Your task to perform on an android device: toggle translation in the chrome app Image 0: 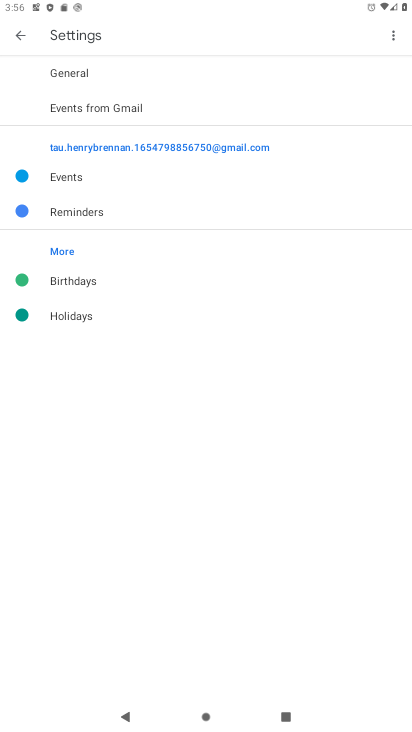
Step 0: press home button
Your task to perform on an android device: toggle translation in the chrome app Image 1: 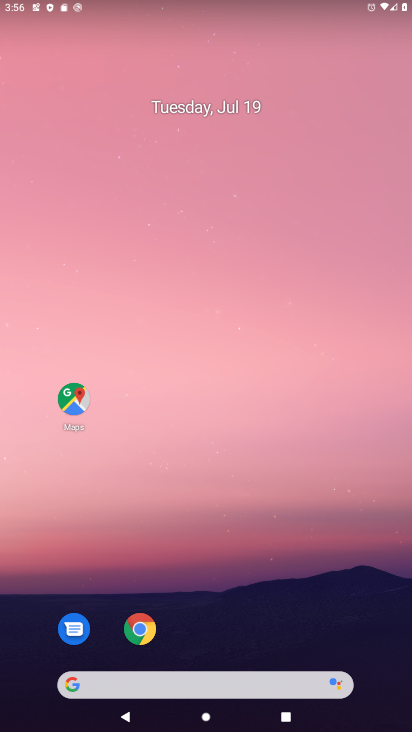
Step 1: click (135, 634)
Your task to perform on an android device: toggle translation in the chrome app Image 2: 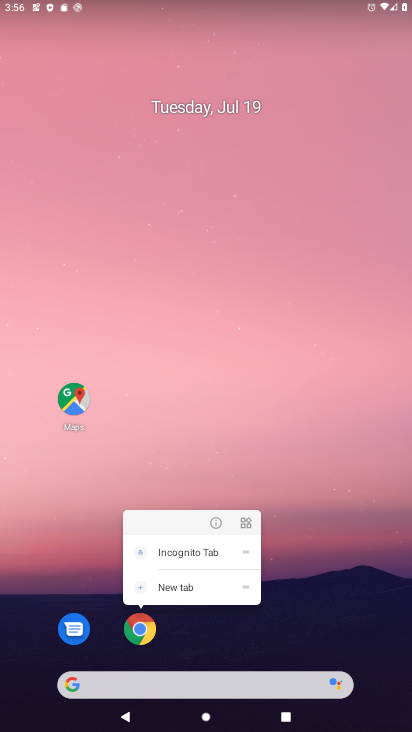
Step 2: click (135, 634)
Your task to perform on an android device: toggle translation in the chrome app Image 3: 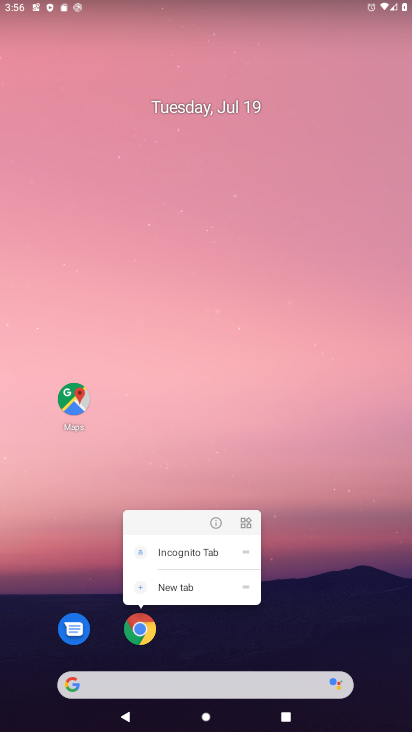
Step 3: click (138, 634)
Your task to perform on an android device: toggle translation in the chrome app Image 4: 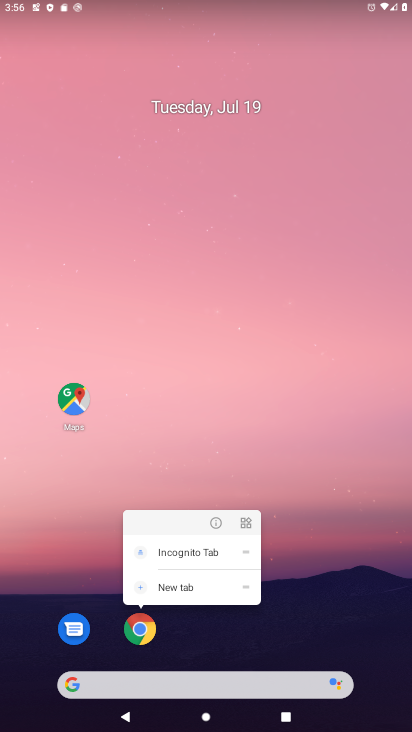
Step 4: click (138, 629)
Your task to perform on an android device: toggle translation in the chrome app Image 5: 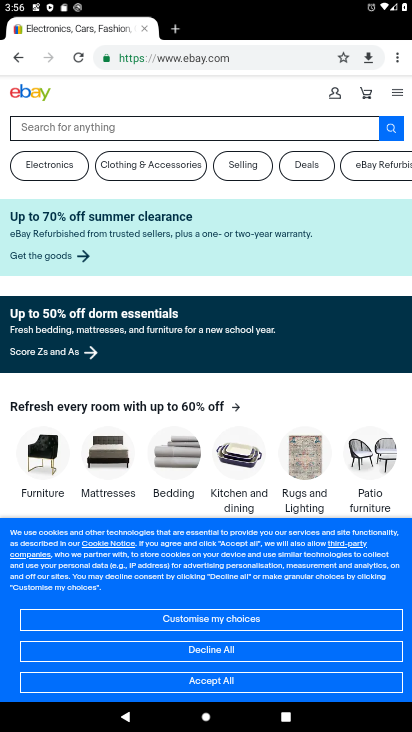
Step 5: click (393, 56)
Your task to perform on an android device: toggle translation in the chrome app Image 6: 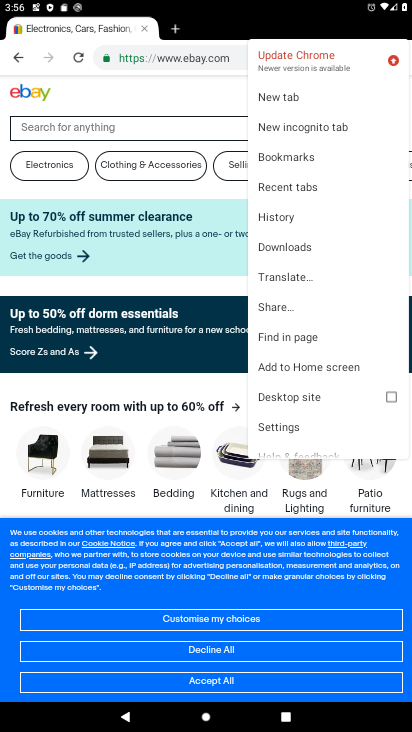
Step 6: click (273, 420)
Your task to perform on an android device: toggle translation in the chrome app Image 7: 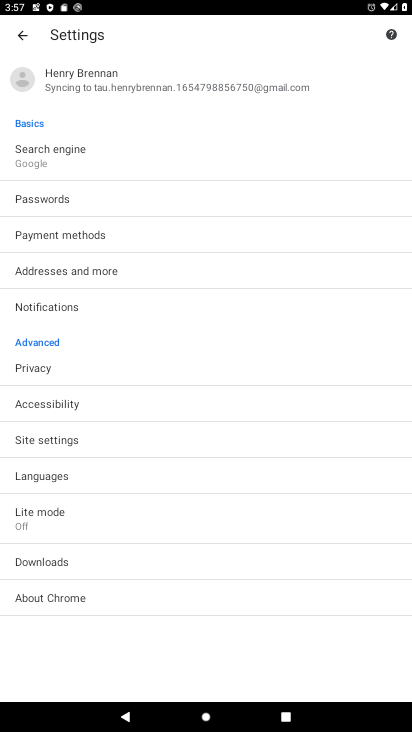
Step 7: click (37, 478)
Your task to perform on an android device: toggle translation in the chrome app Image 8: 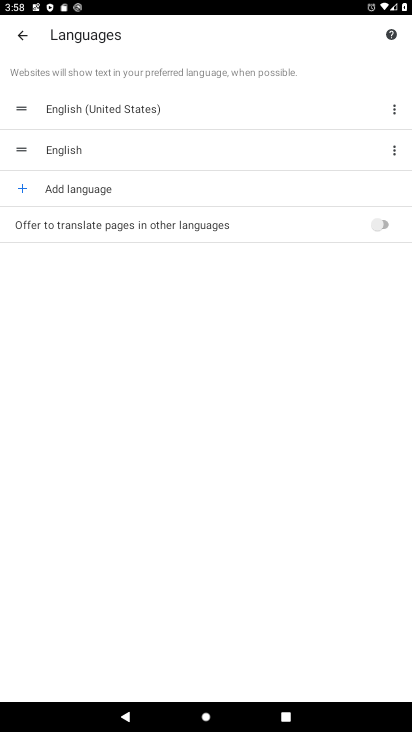
Step 8: click (386, 222)
Your task to perform on an android device: toggle translation in the chrome app Image 9: 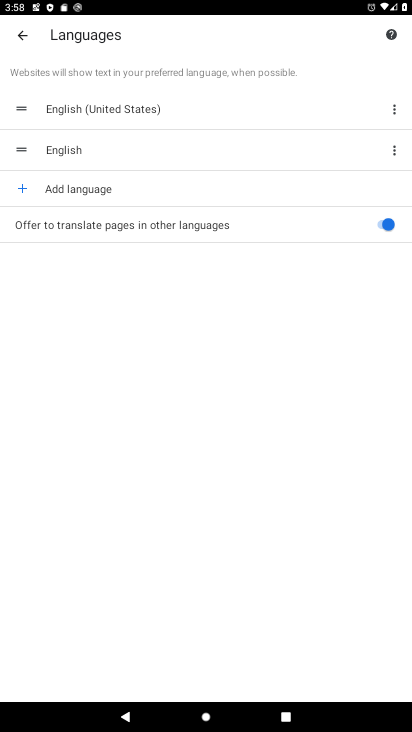
Step 9: task complete